Your task to perform on an android device: remove spam from my inbox in the gmail app Image 0: 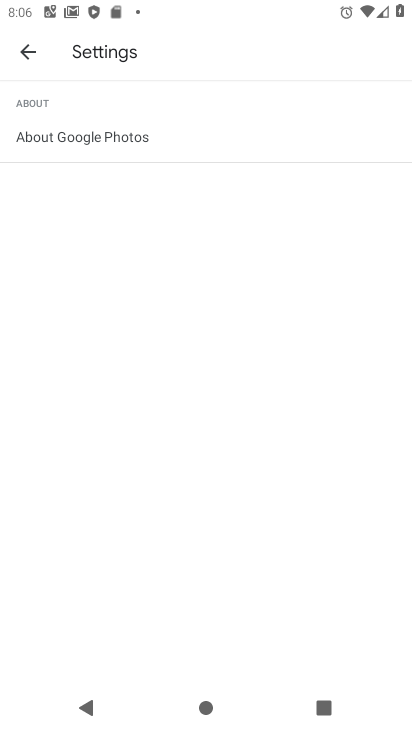
Step 0: press back button
Your task to perform on an android device: remove spam from my inbox in the gmail app Image 1: 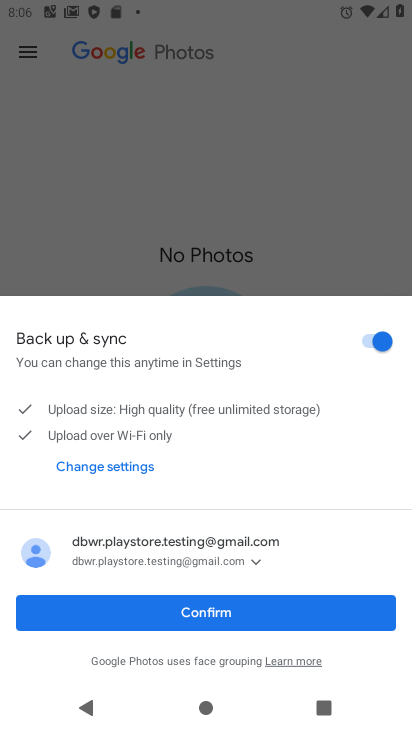
Step 1: press home button
Your task to perform on an android device: remove spam from my inbox in the gmail app Image 2: 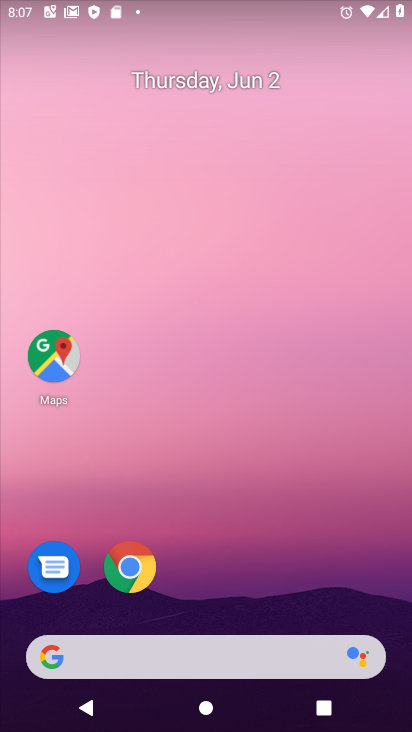
Step 2: drag from (234, 530) to (174, 169)
Your task to perform on an android device: remove spam from my inbox in the gmail app Image 3: 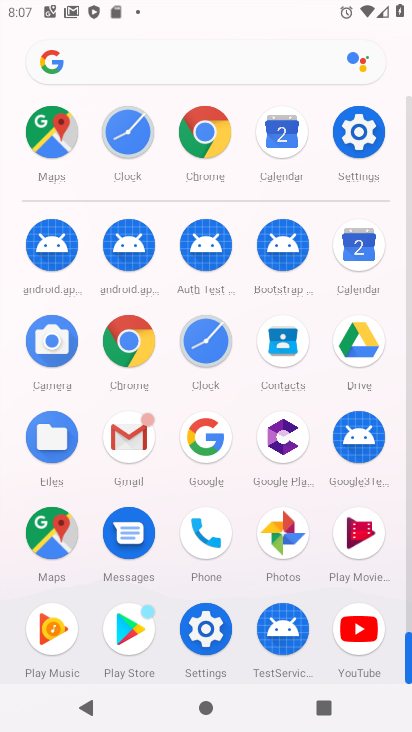
Step 3: click (126, 435)
Your task to perform on an android device: remove spam from my inbox in the gmail app Image 4: 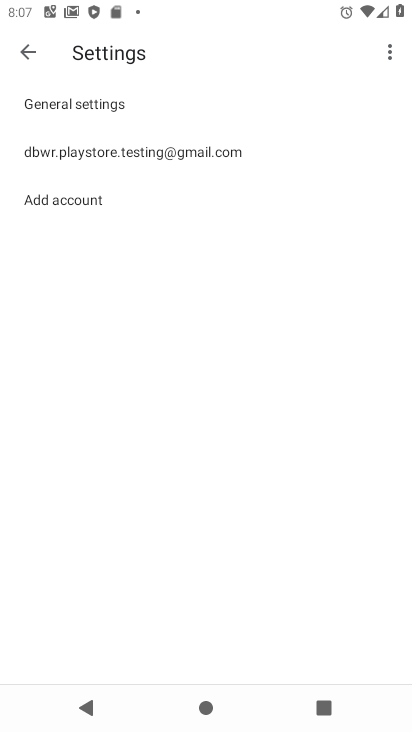
Step 4: click (27, 52)
Your task to perform on an android device: remove spam from my inbox in the gmail app Image 5: 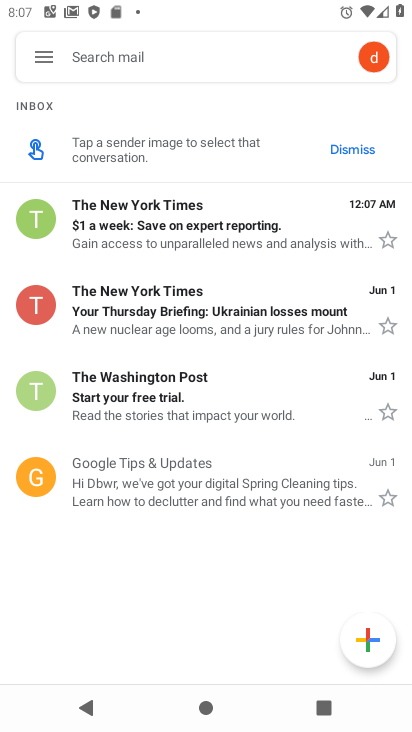
Step 5: click (49, 58)
Your task to perform on an android device: remove spam from my inbox in the gmail app Image 6: 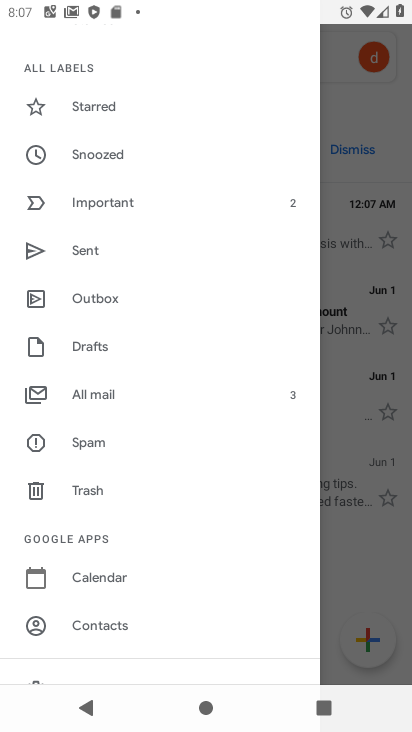
Step 6: click (88, 440)
Your task to perform on an android device: remove spam from my inbox in the gmail app Image 7: 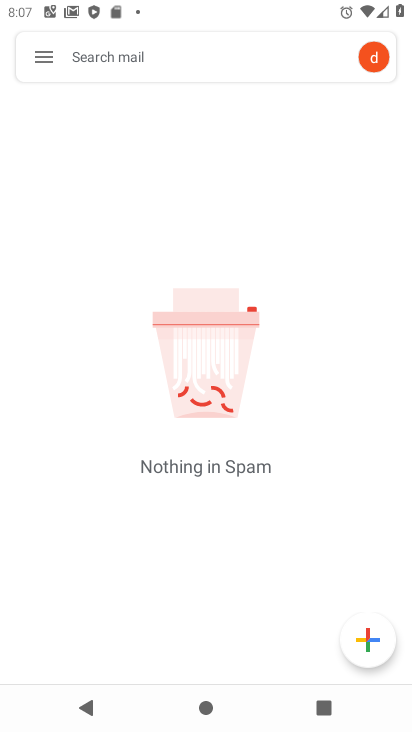
Step 7: task complete